Your task to perform on an android device: Open network settings Image 0: 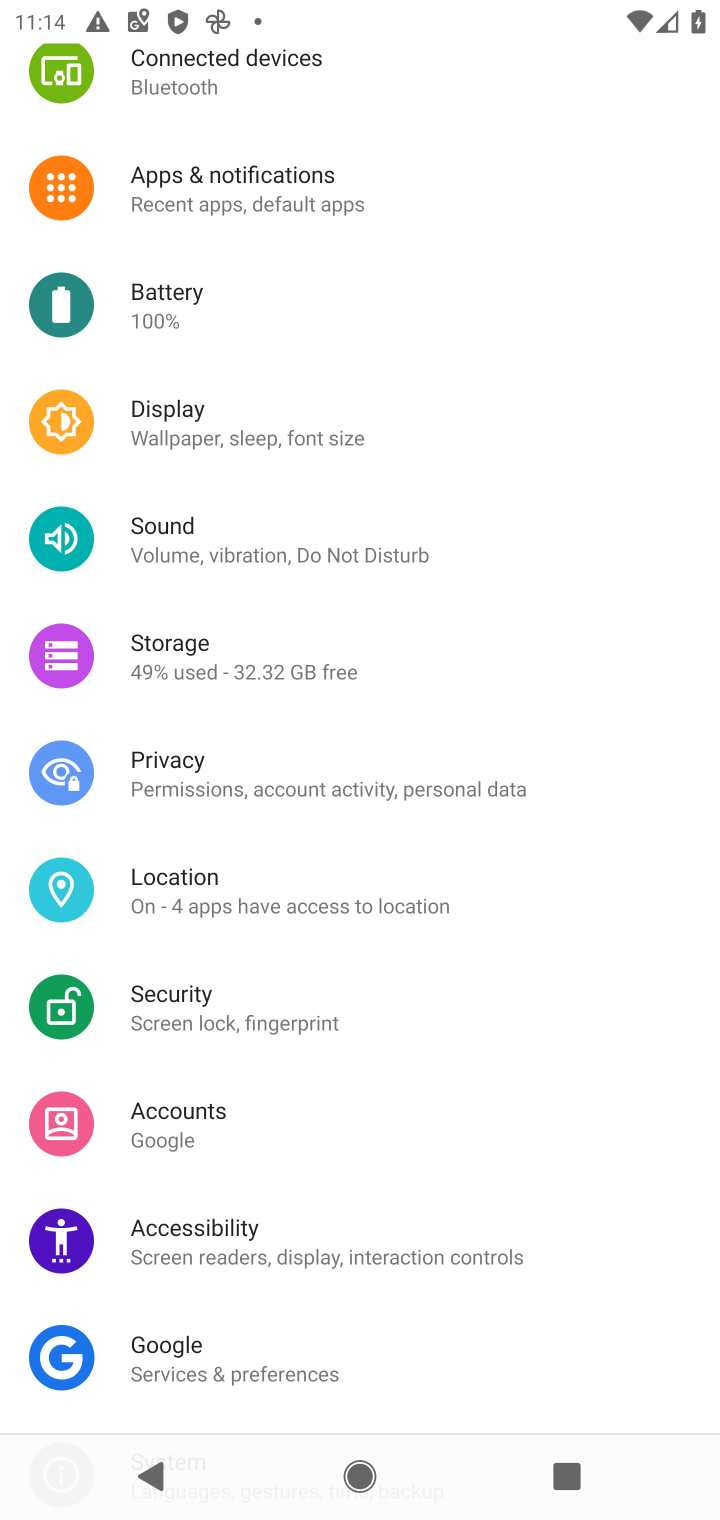
Step 0: drag from (558, 238) to (602, 930)
Your task to perform on an android device: Open network settings Image 1: 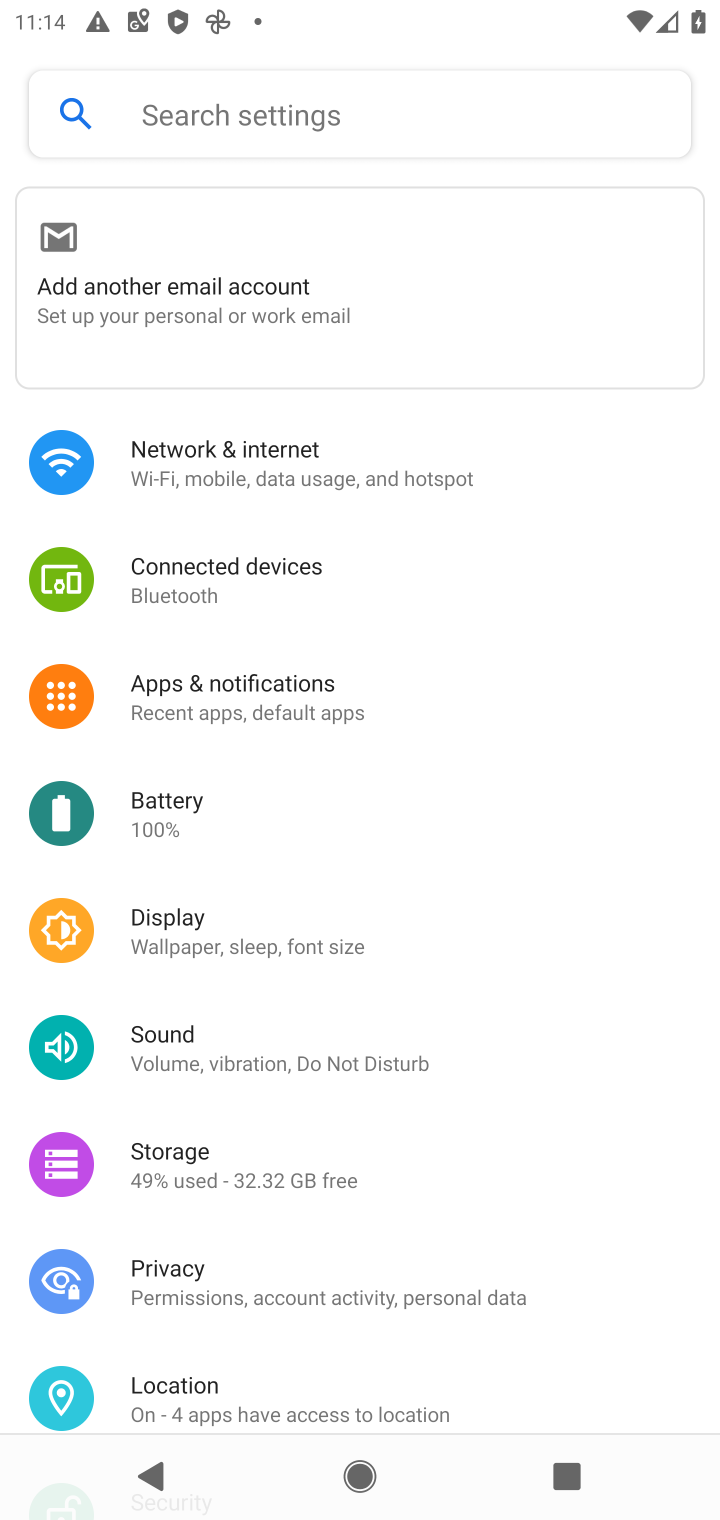
Step 1: click (190, 438)
Your task to perform on an android device: Open network settings Image 2: 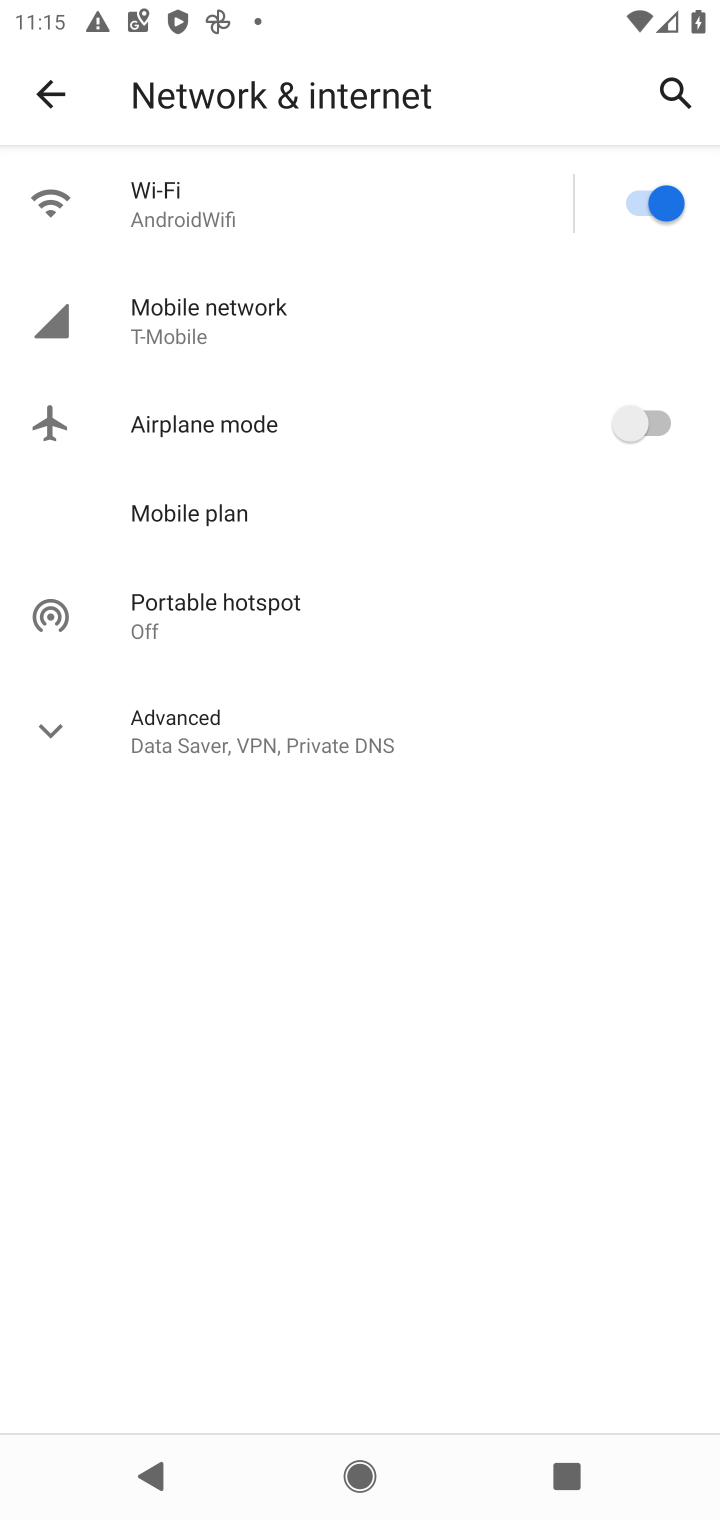
Step 2: click (178, 310)
Your task to perform on an android device: Open network settings Image 3: 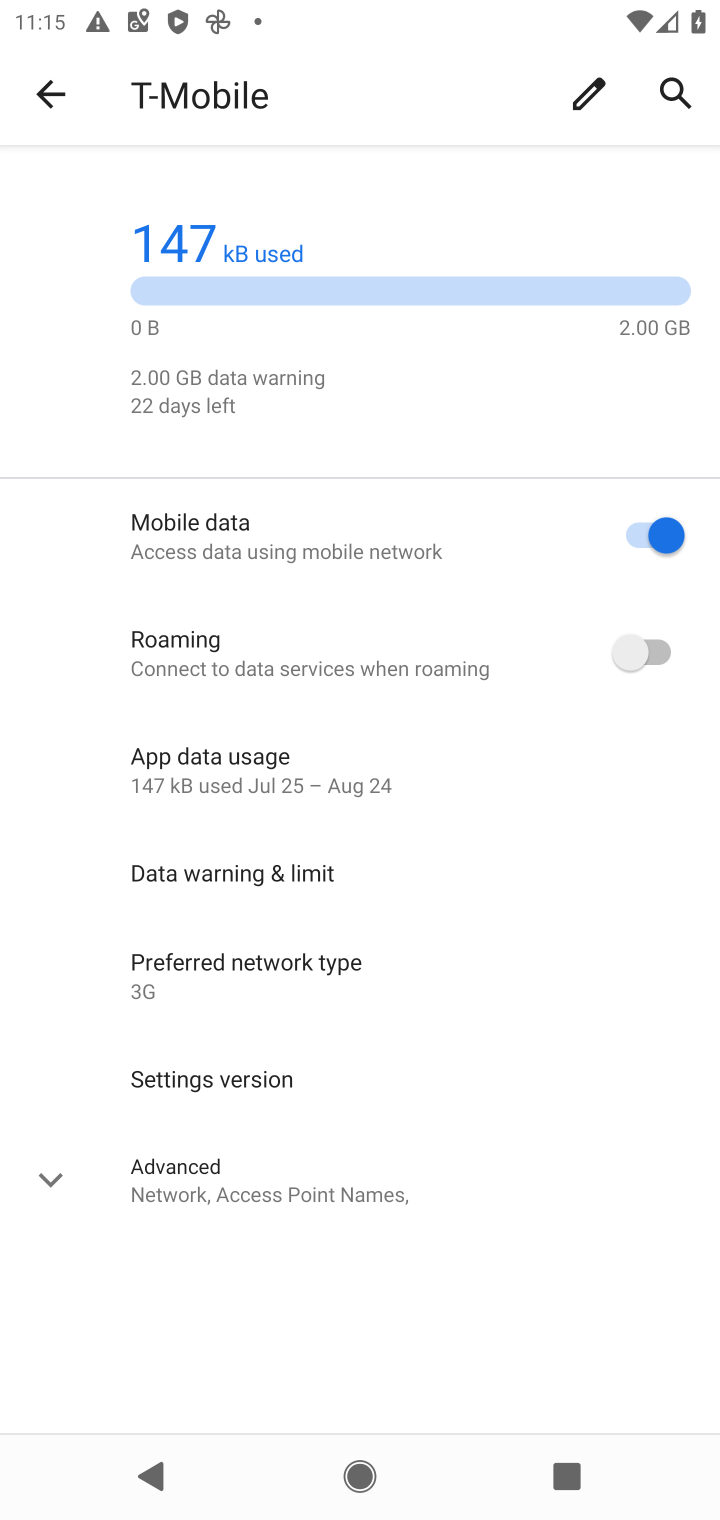
Step 3: task complete